Your task to perform on an android device: allow cookies in the chrome app Image 0: 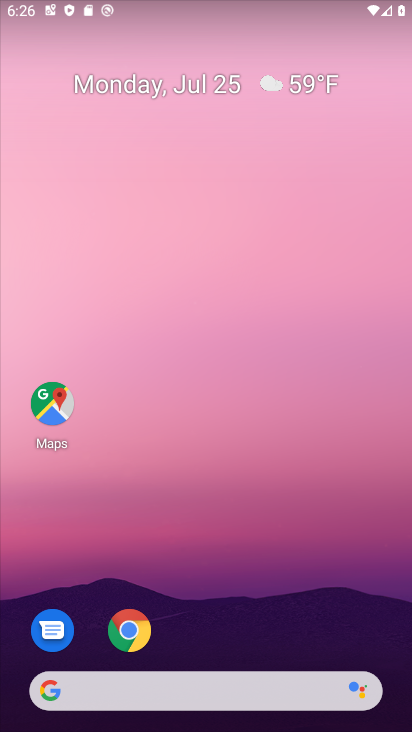
Step 0: click (136, 629)
Your task to perform on an android device: allow cookies in the chrome app Image 1: 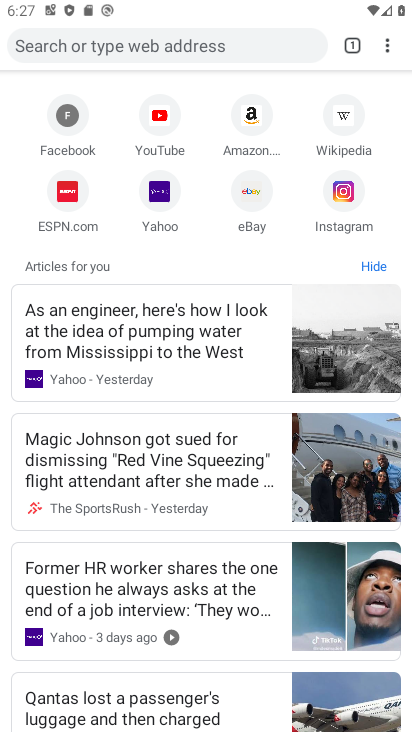
Step 1: click (382, 41)
Your task to perform on an android device: allow cookies in the chrome app Image 2: 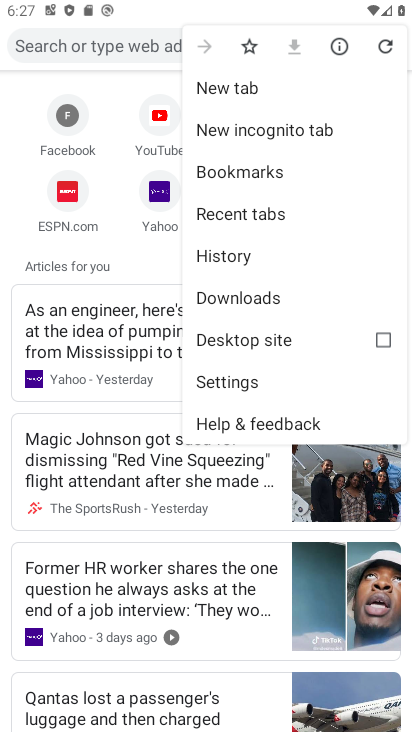
Step 2: click (229, 376)
Your task to perform on an android device: allow cookies in the chrome app Image 3: 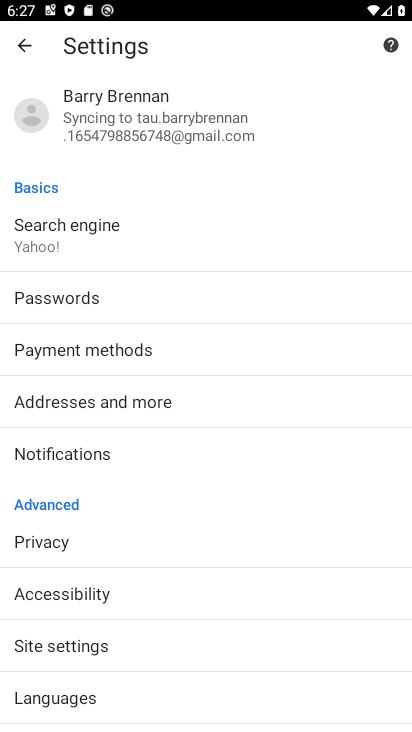
Step 3: click (57, 635)
Your task to perform on an android device: allow cookies in the chrome app Image 4: 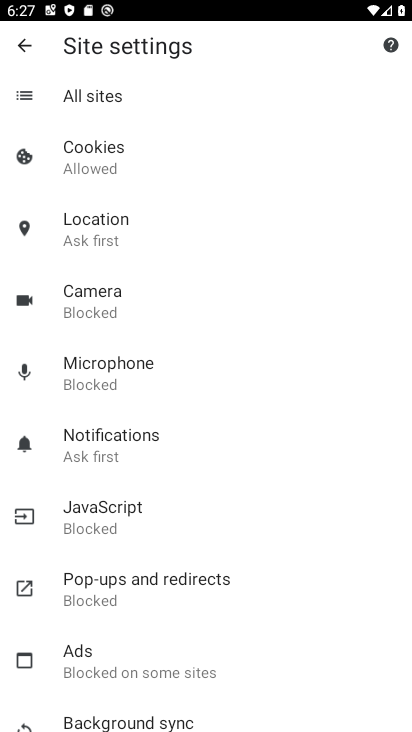
Step 4: click (105, 162)
Your task to perform on an android device: allow cookies in the chrome app Image 5: 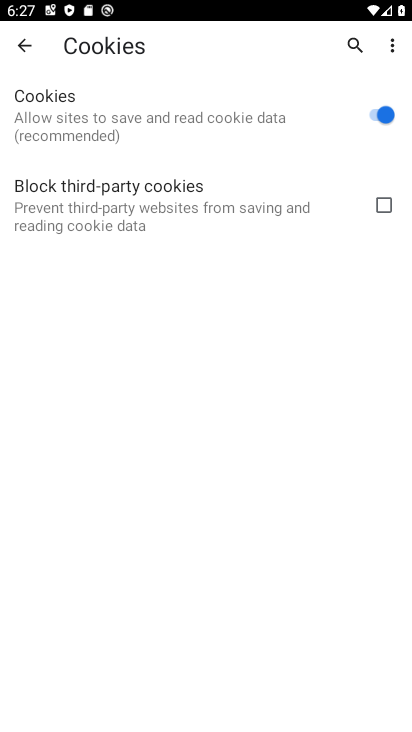
Step 5: task complete